Your task to perform on an android device: move a message to another label in the gmail app Image 0: 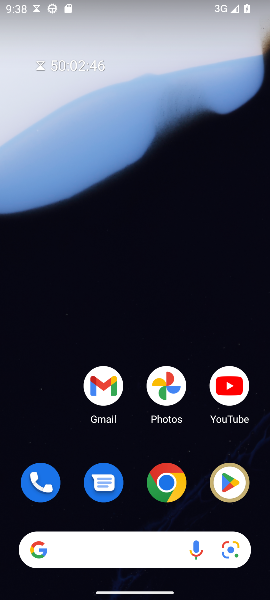
Step 0: drag from (150, 471) to (228, 4)
Your task to perform on an android device: move a message to another label in the gmail app Image 1: 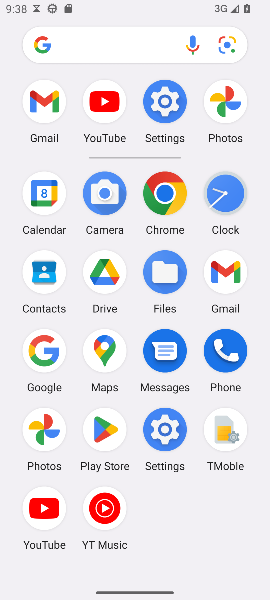
Step 1: click (51, 105)
Your task to perform on an android device: move a message to another label in the gmail app Image 2: 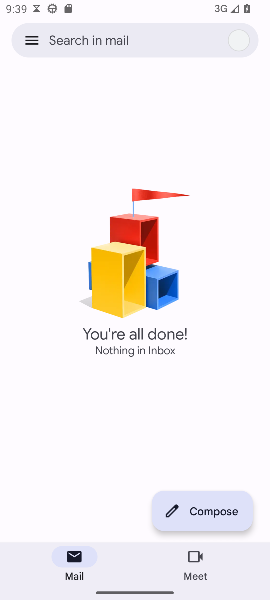
Step 2: click (30, 43)
Your task to perform on an android device: move a message to another label in the gmail app Image 3: 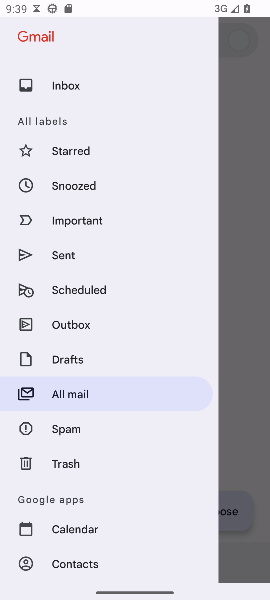
Step 3: click (101, 393)
Your task to perform on an android device: move a message to another label in the gmail app Image 4: 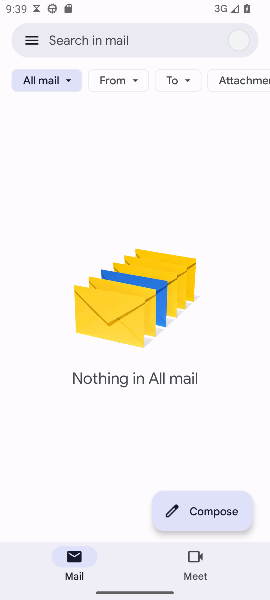
Step 4: task complete